Your task to perform on an android device: Open Chrome and go to the settings page Image 0: 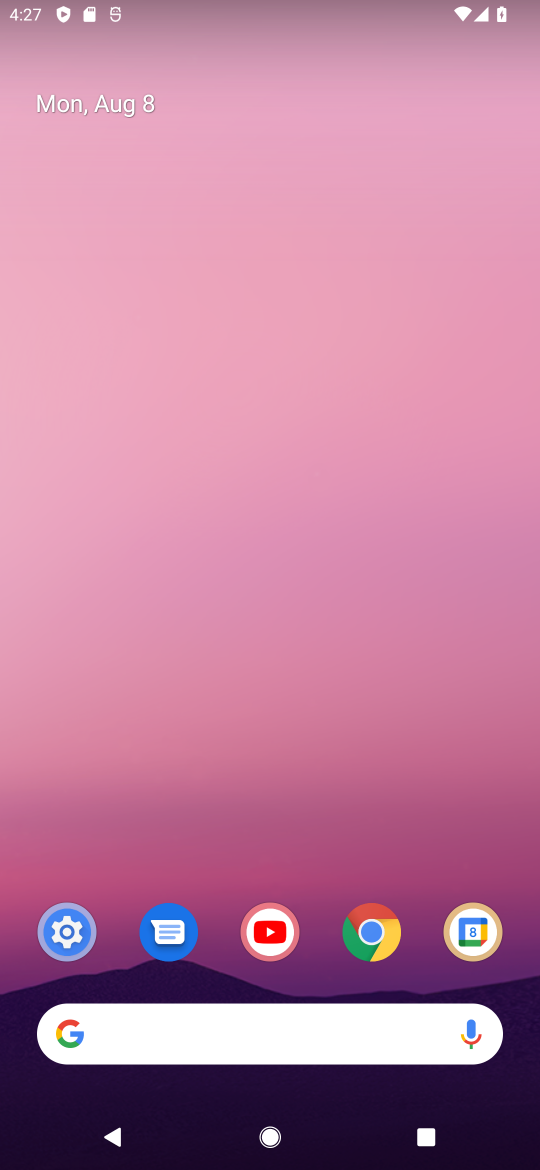
Step 0: click (71, 933)
Your task to perform on an android device: Open Chrome and go to the settings page Image 1: 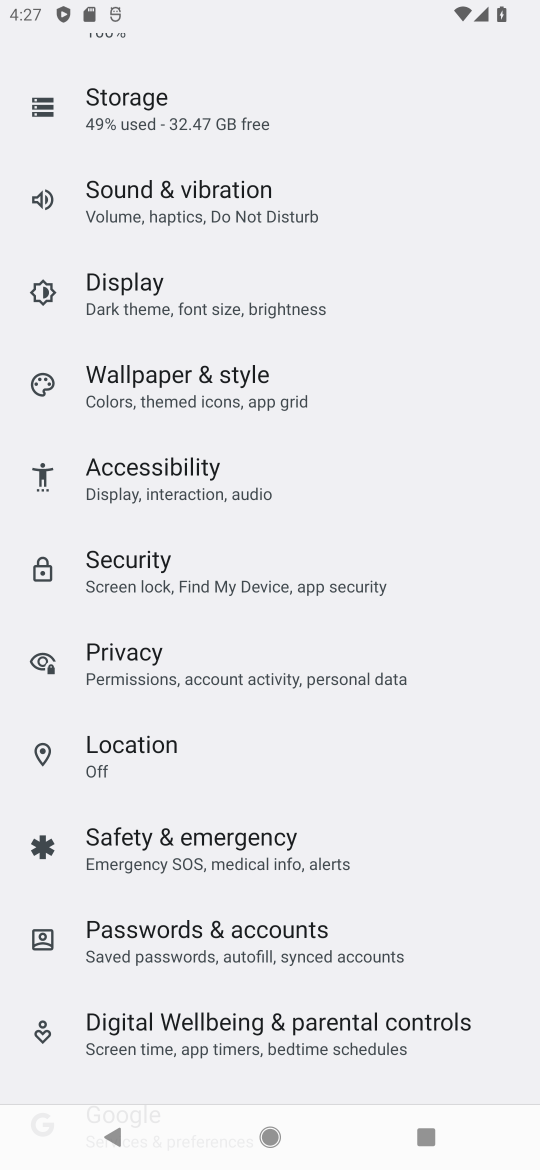
Step 1: press home button
Your task to perform on an android device: Open Chrome and go to the settings page Image 2: 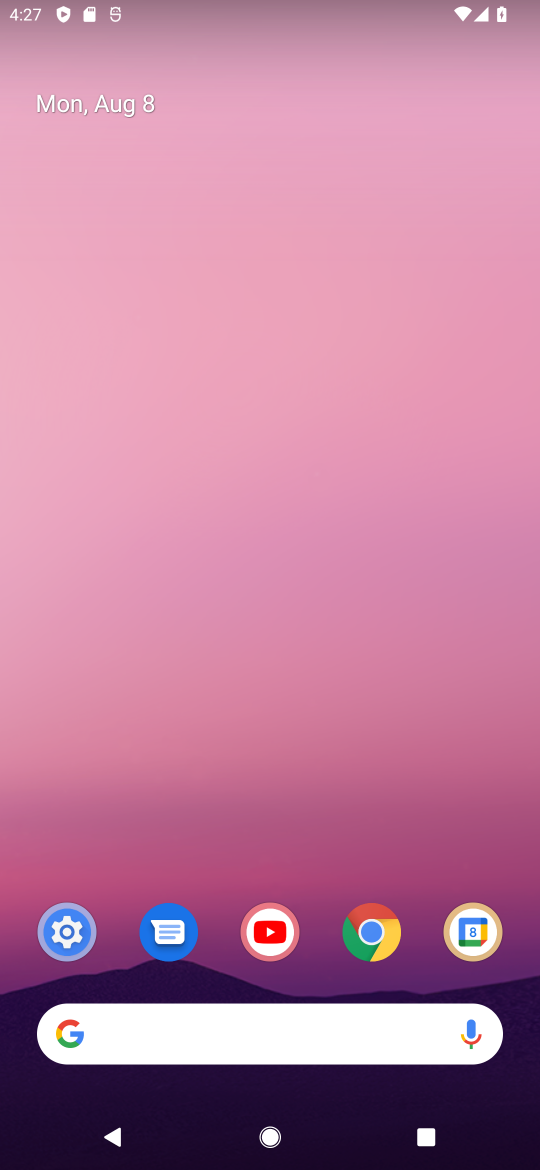
Step 2: click (64, 931)
Your task to perform on an android device: Open Chrome and go to the settings page Image 3: 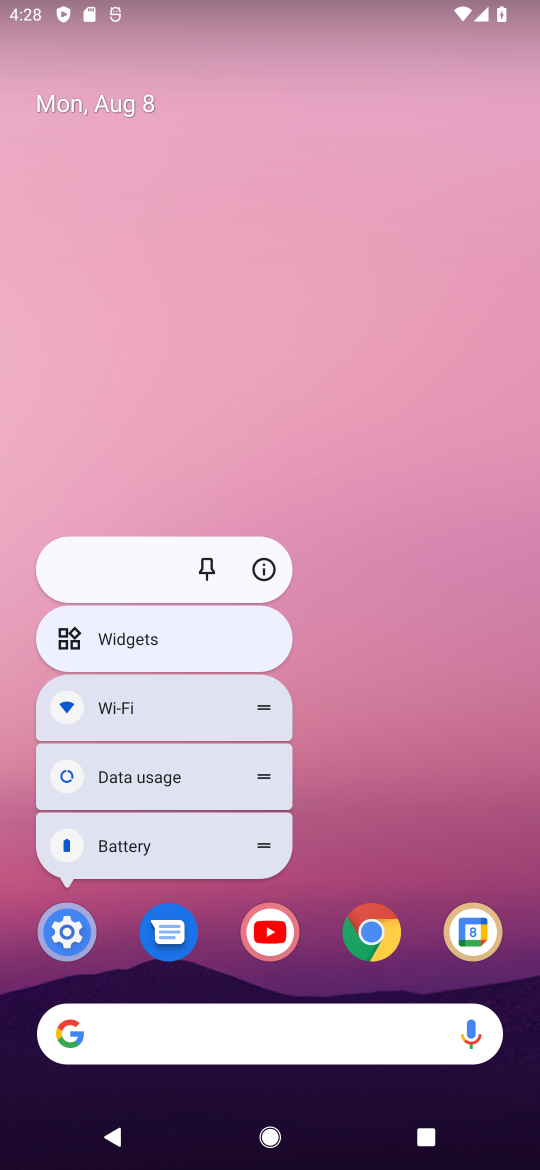
Step 3: click (64, 931)
Your task to perform on an android device: Open Chrome and go to the settings page Image 4: 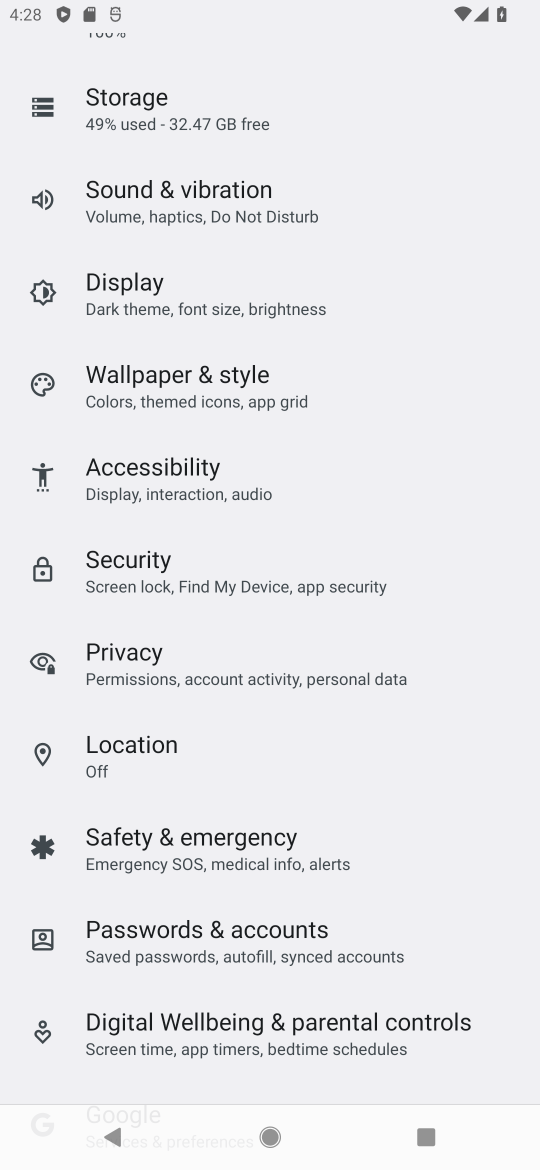
Step 4: press home button
Your task to perform on an android device: Open Chrome and go to the settings page Image 5: 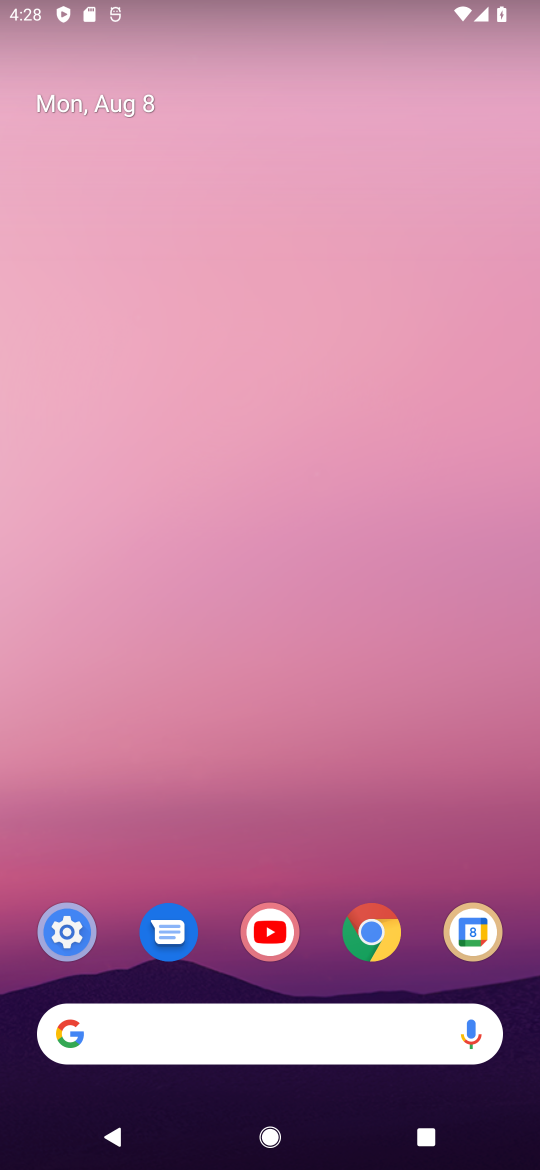
Step 5: click (369, 924)
Your task to perform on an android device: Open Chrome and go to the settings page Image 6: 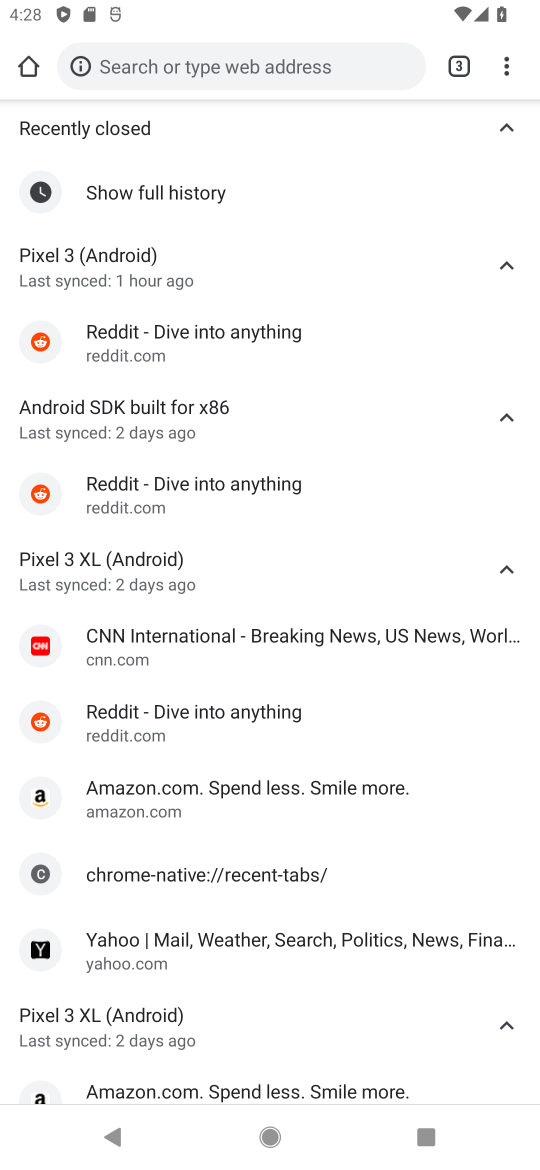
Step 6: click (511, 60)
Your task to perform on an android device: Open Chrome and go to the settings page Image 7: 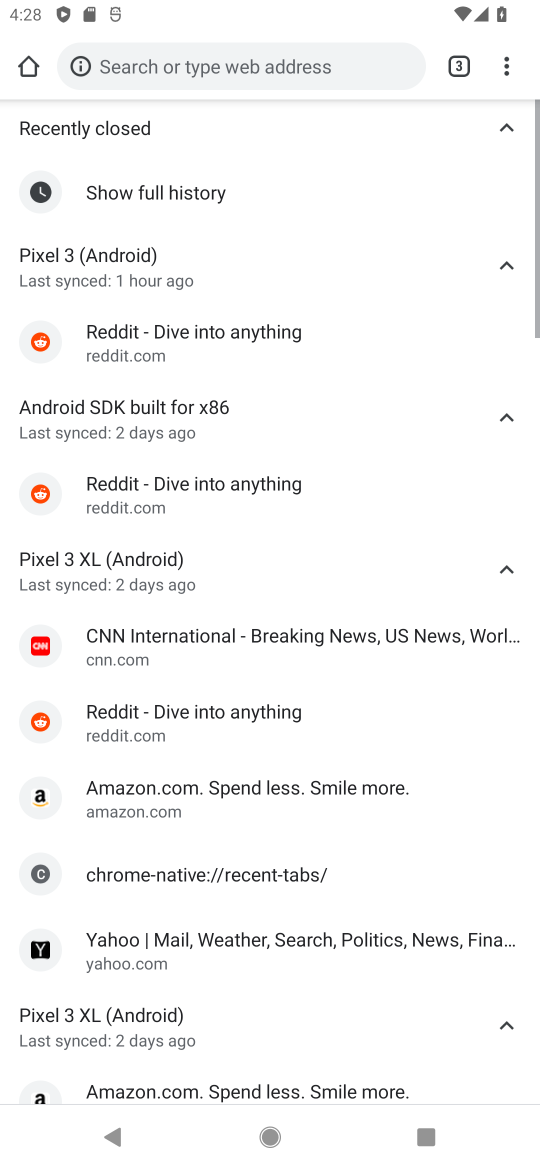
Step 7: click (510, 50)
Your task to perform on an android device: Open Chrome and go to the settings page Image 8: 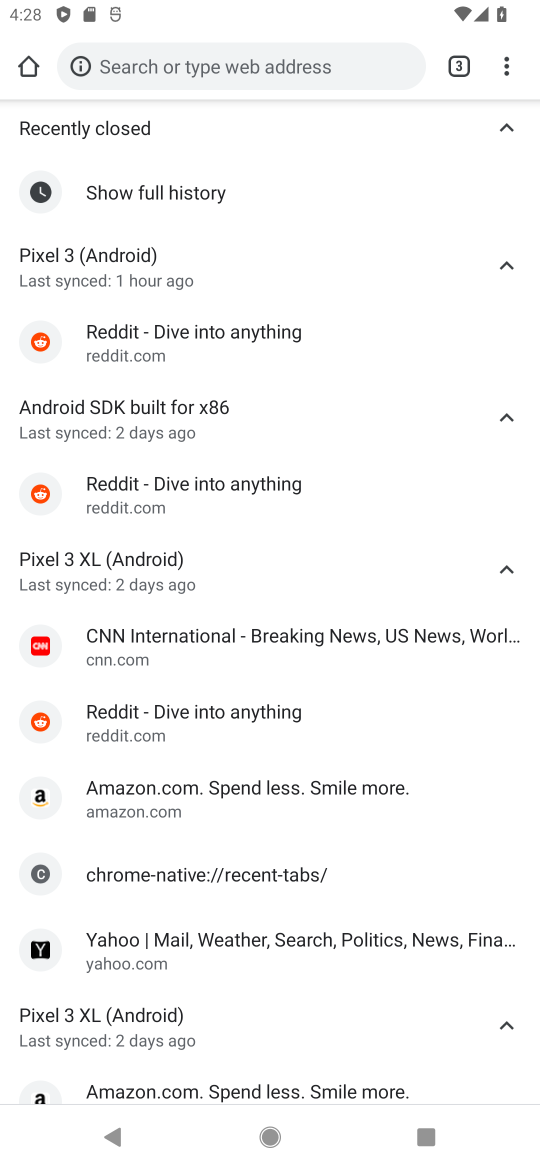
Step 8: click (496, 61)
Your task to perform on an android device: Open Chrome and go to the settings page Image 9: 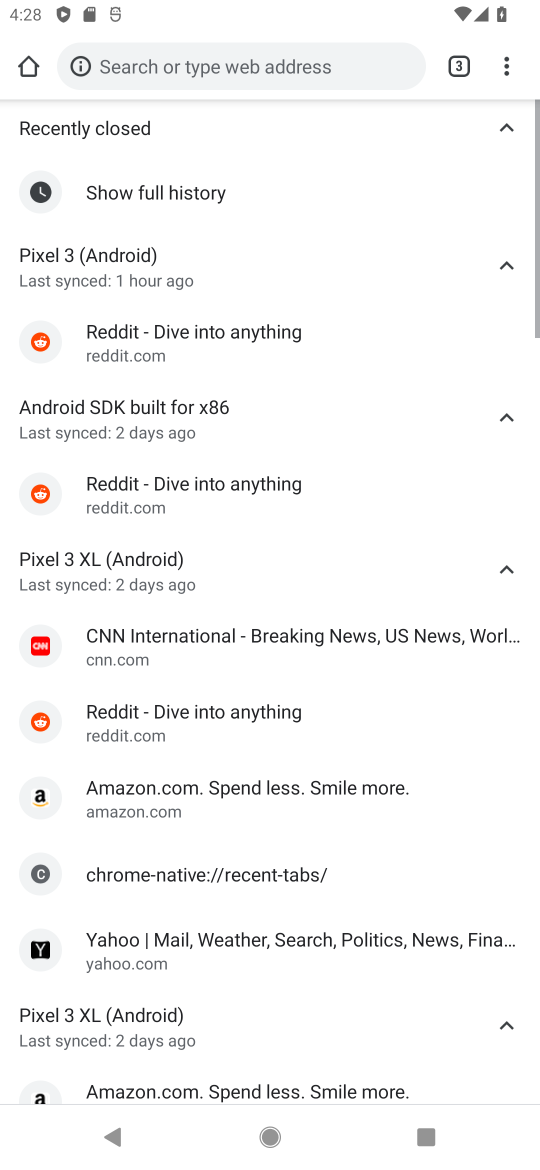
Step 9: click (503, 47)
Your task to perform on an android device: Open Chrome and go to the settings page Image 10: 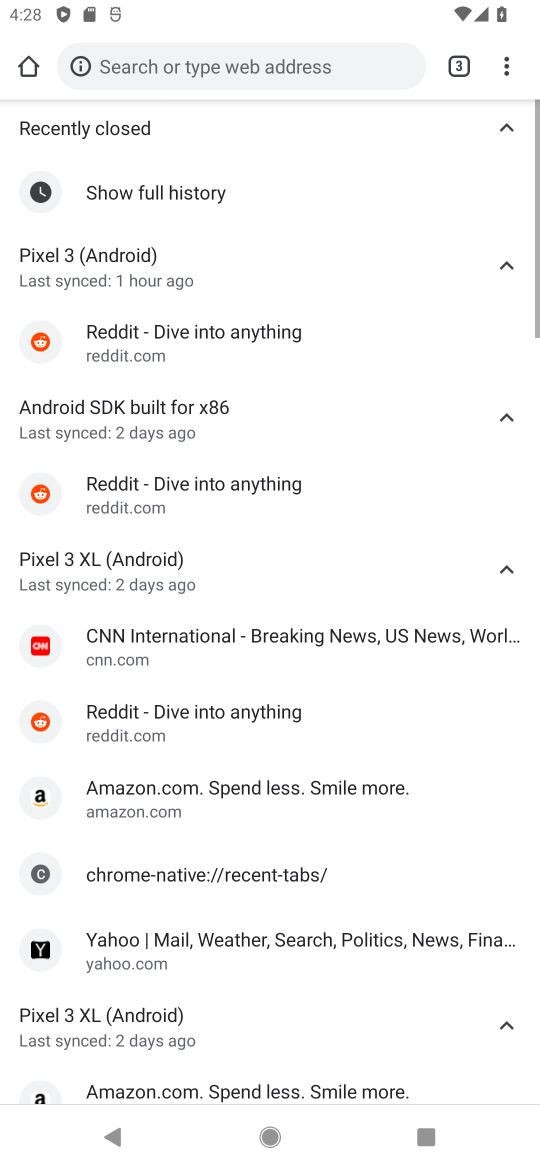
Step 10: click (503, 47)
Your task to perform on an android device: Open Chrome and go to the settings page Image 11: 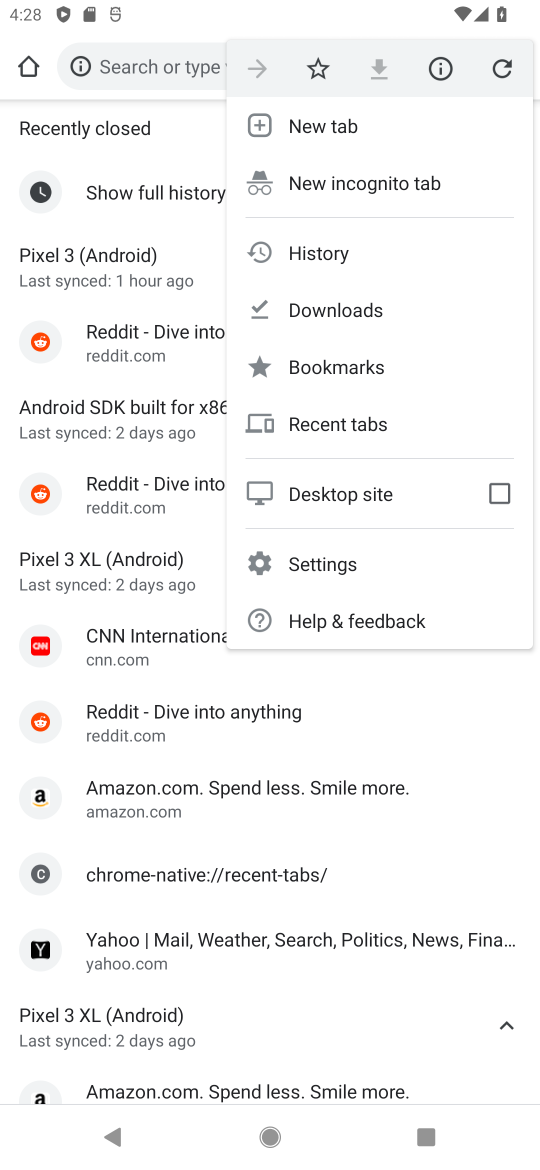
Step 11: click (367, 557)
Your task to perform on an android device: Open Chrome and go to the settings page Image 12: 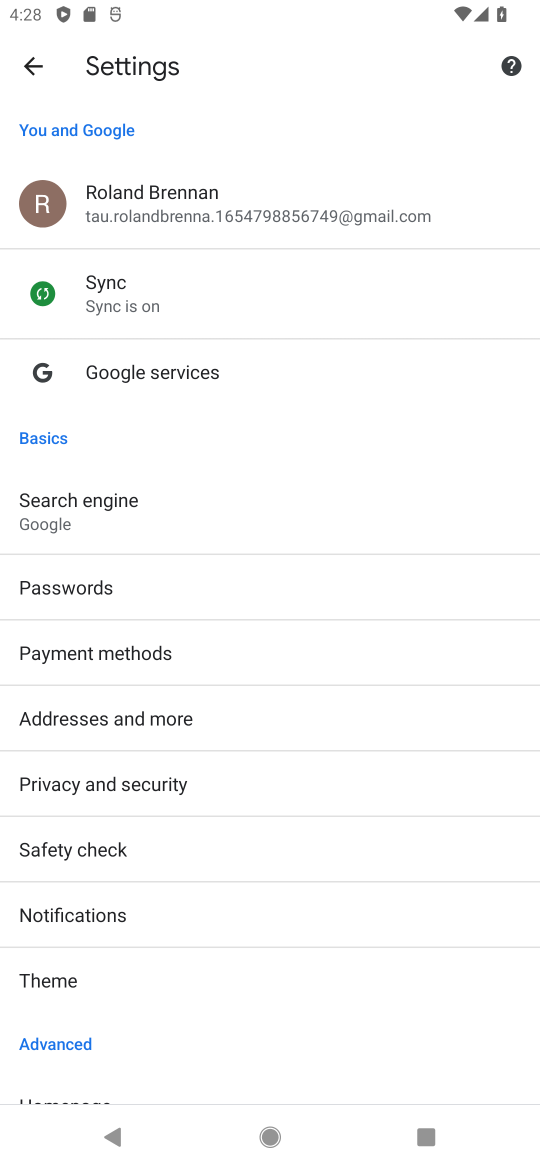
Step 12: task complete